Your task to perform on an android device: allow cookies in the chrome app Image 0: 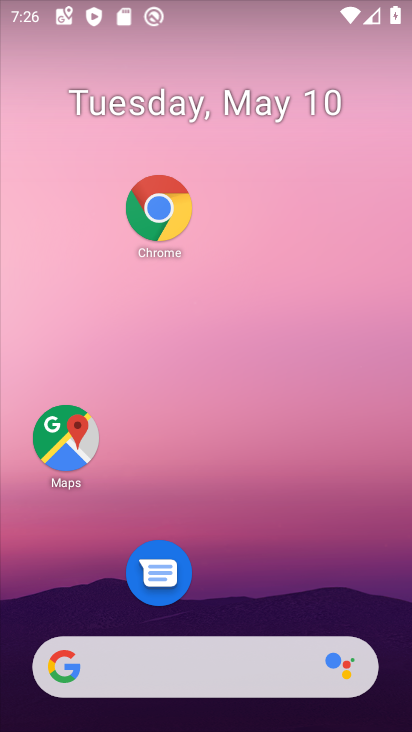
Step 0: drag from (239, 691) to (282, 347)
Your task to perform on an android device: allow cookies in the chrome app Image 1: 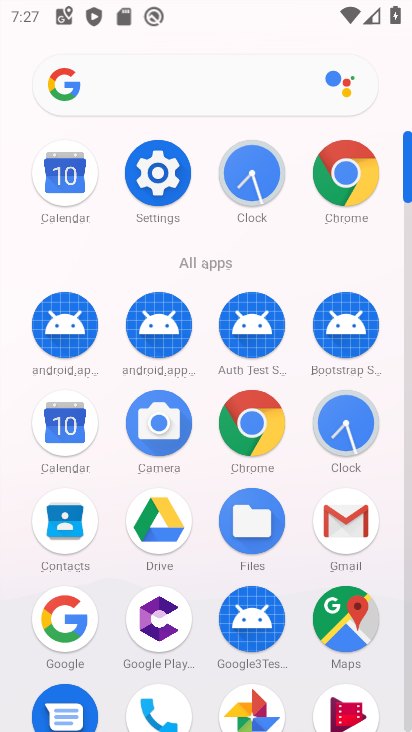
Step 1: click (346, 193)
Your task to perform on an android device: allow cookies in the chrome app Image 2: 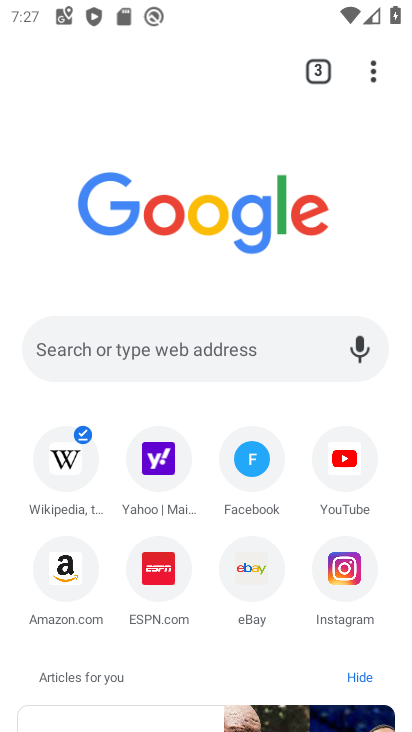
Step 2: click (366, 92)
Your task to perform on an android device: allow cookies in the chrome app Image 3: 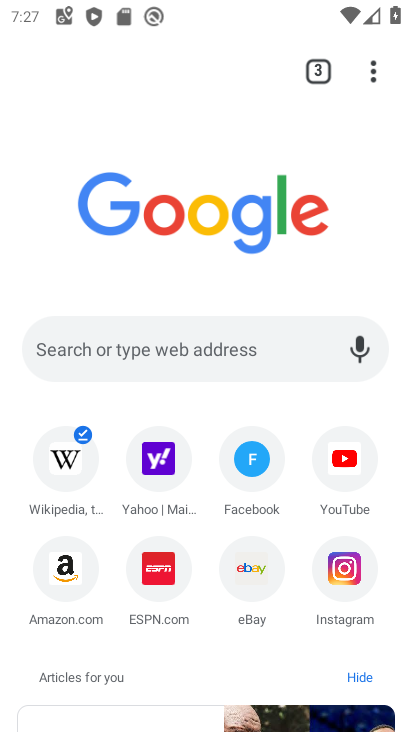
Step 3: click (377, 96)
Your task to perform on an android device: allow cookies in the chrome app Image 4: 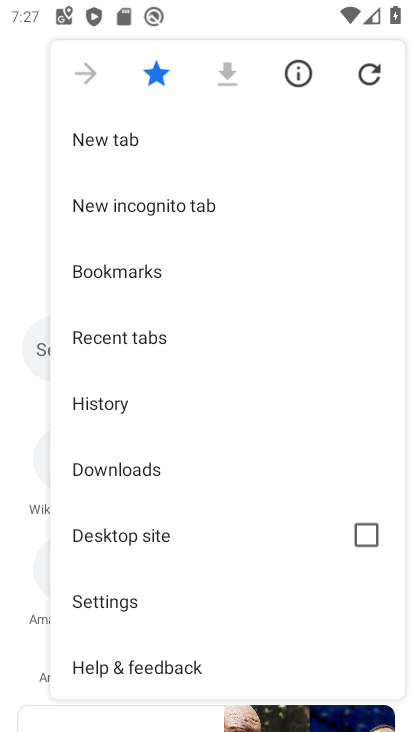
Step 4: click (138, 593)
Your task to perform on an android device: allow cookies in the chrome app Image 5: 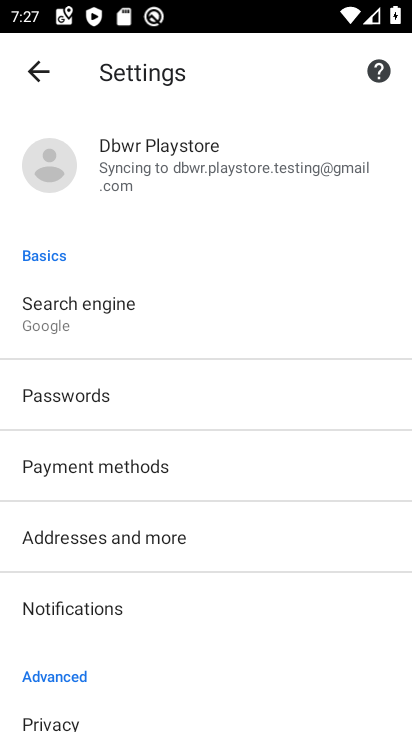
Step 5: drag from (135, 590) to (135, 236)
Your task to perform on an android device: allow cookies in the chrome app Image 6: 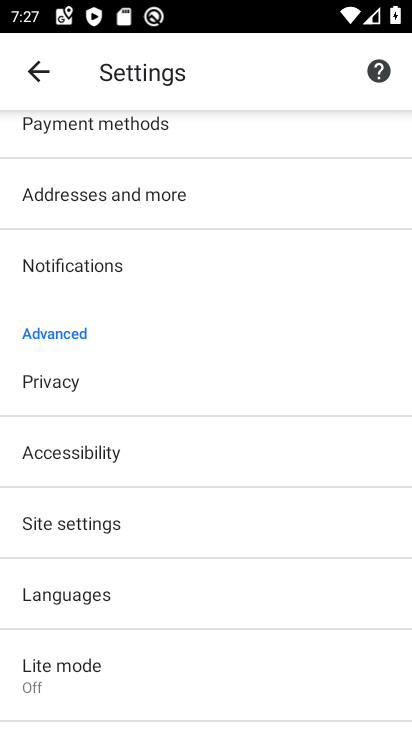
Step 6: click (100, 528)
Your task to perform on an android device: allow cookies in the chrome app Image 7: 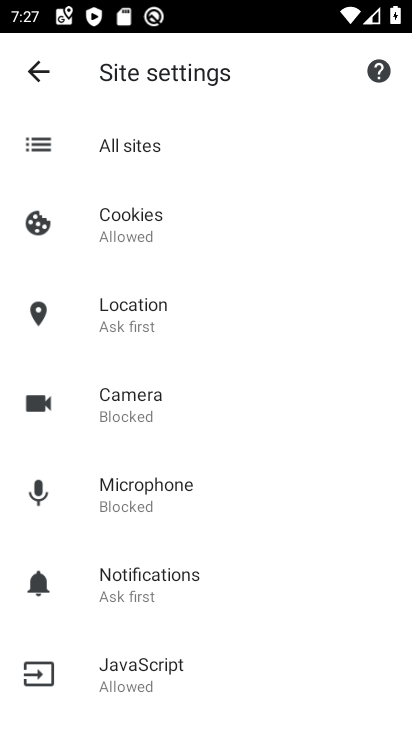
Step 7: click (123, 231)
Your task to perform on an android device: allow cookies in the chrome app Image 8: 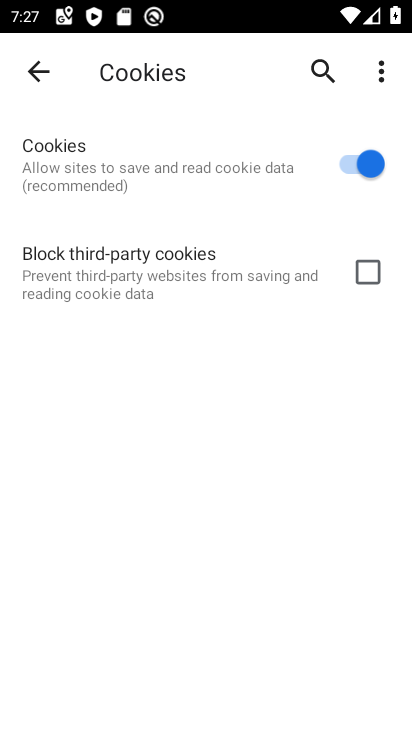
Step 8: click (136, 190)
Your task to perform on an android device: allow cookies in the chrome app Image 9: 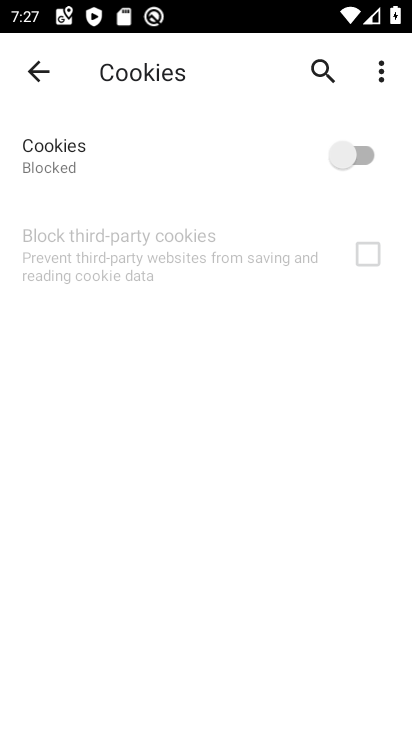
Step 9: click (136, 189)
Your task to perform on an android device: allow cookies in the chrome app Image 10: 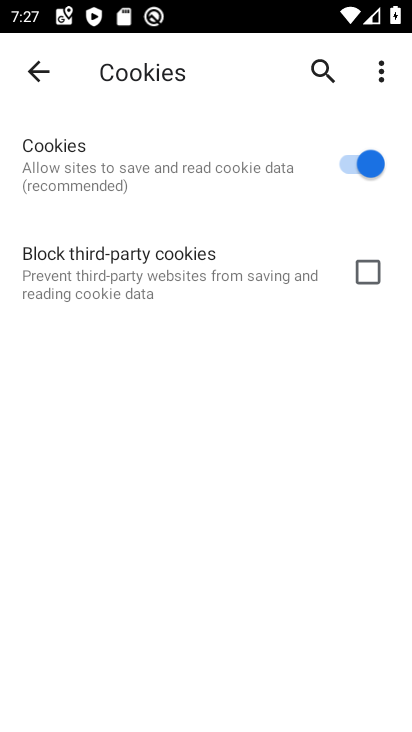
Step 10: task complete